Your task to perform on an android device: move a message to another label in the gmail app Image 0: 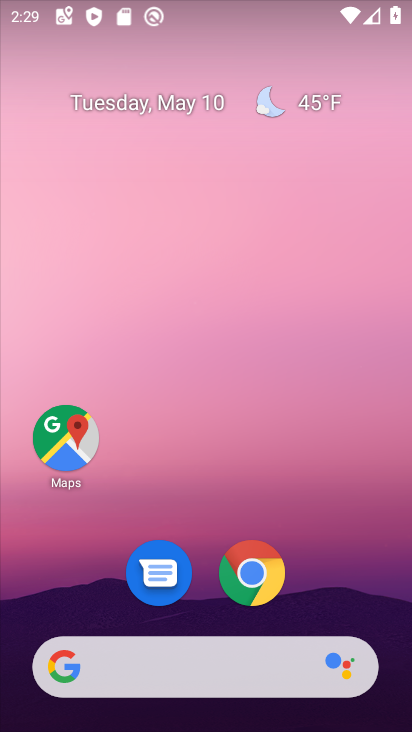
Step 0: drag from (209, 550) to (247, 206)
Your task to perform on an android device: move a message to another label in the gmail app Image 1: 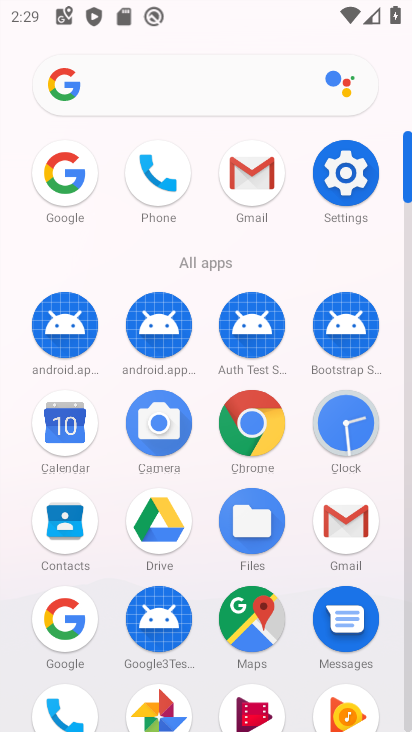
Step 1: click (247, 195)
Your task to perform on an android device: move a message to another label in the gmail app Image 2: 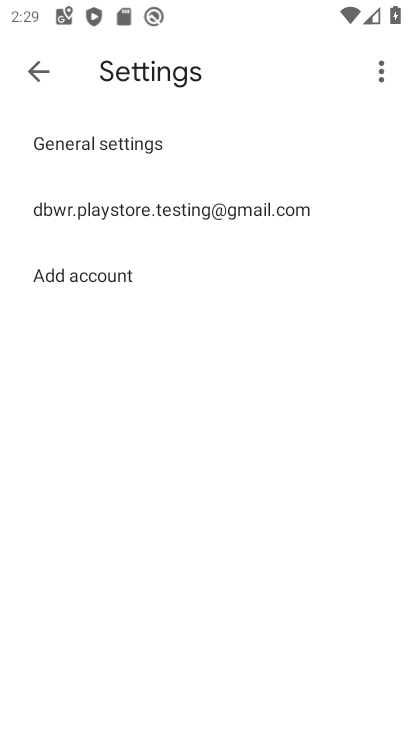
Step 2: click (25, 86)
Your task to perform on an android device: move a message to another label in the gmail app Image 3: 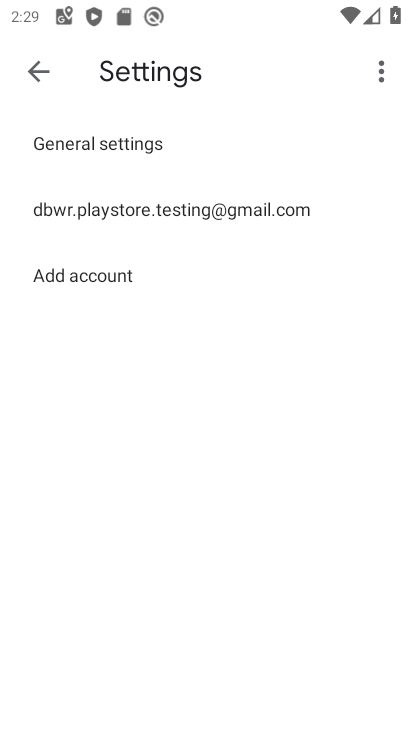
Step 3: click (25, 86)
Your task to perform on an android device: move a message to another label in the gmail app Image 4: 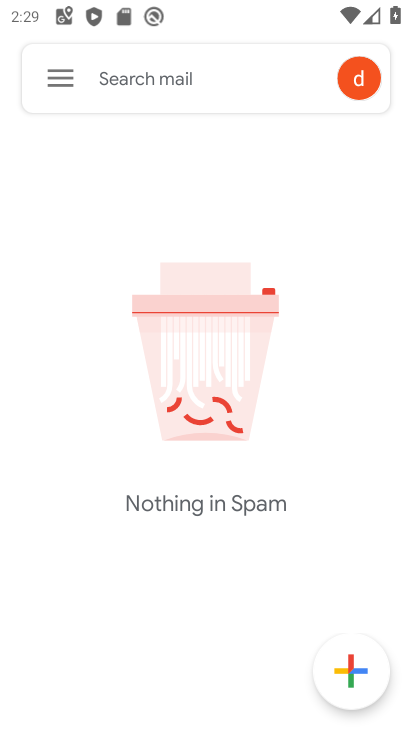
Step 4: click (45, 85)
Your task to perform on an android device: move a message to another label in the gmail app Image 5: 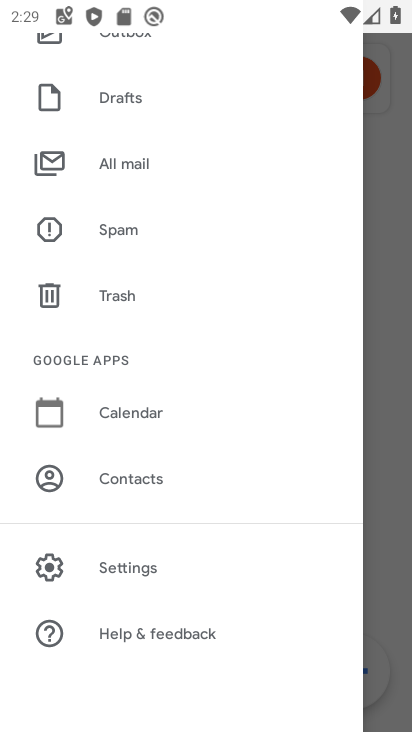
Step 5: drag from (175, 224) to (175, 367)
Your task to perform on an android device: move a message to another label in the gmail app Image 6: 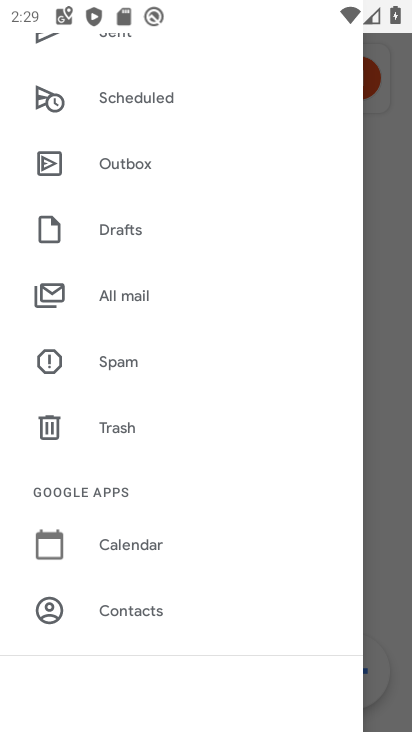
Step 6: click (145, 283)
Your task to perform on an android device: move a message to another label in the gmail app Image 7: 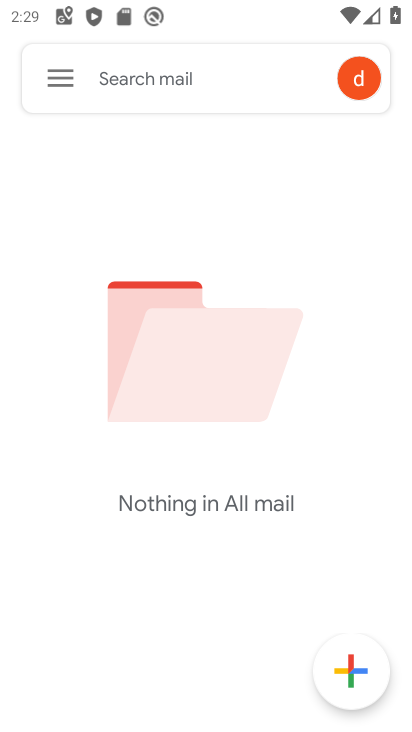
Step 7: task complete